Your task to perform on an android device: check google app version Image 0: 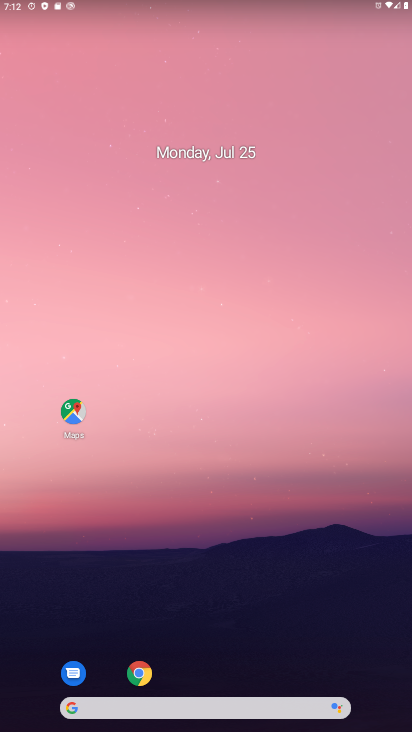
Step 0: drag from (322, 678) to (204, 85)
Your task to perform on an android device: check google app version Image 1: 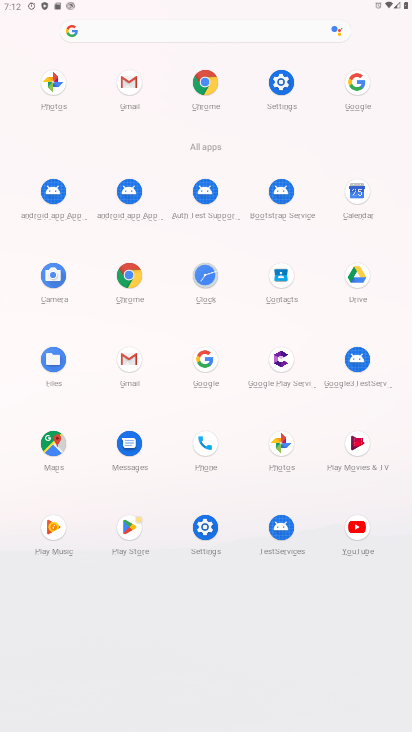
Step 1: click (197, 348)
Your task to perform on an android device: check google app version Image 2: 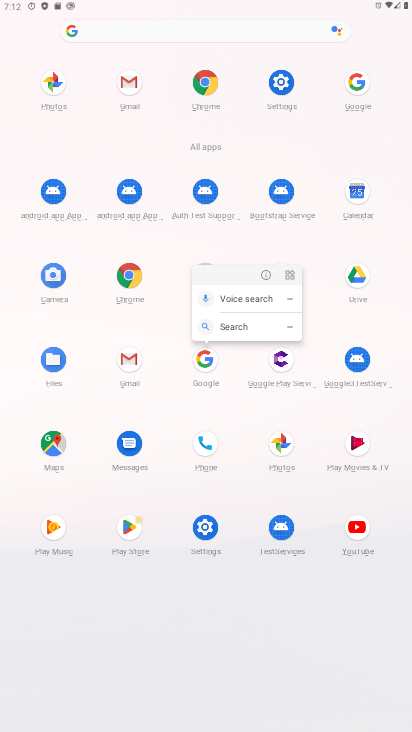
Step 2: click (265, 271)
Your task to perform on an android device: check google app version Image 3: 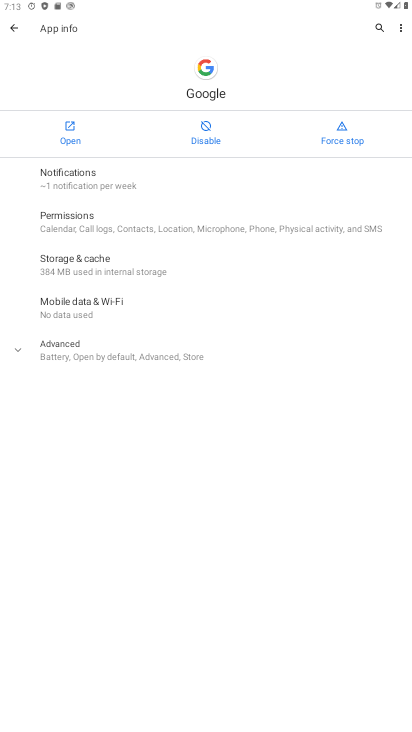
Step 3: click (90, 350)
Your task to perform on an android device: check google app version Image 4: 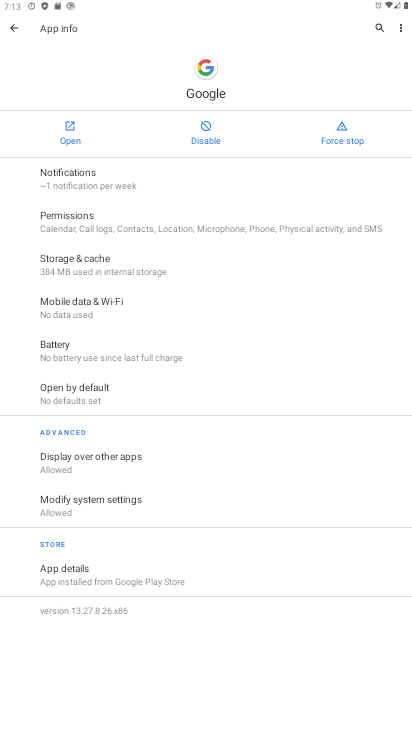
Step 4: task complete